Your task to perform on an android device: View the shopping cart on amazon.com. Image 0: 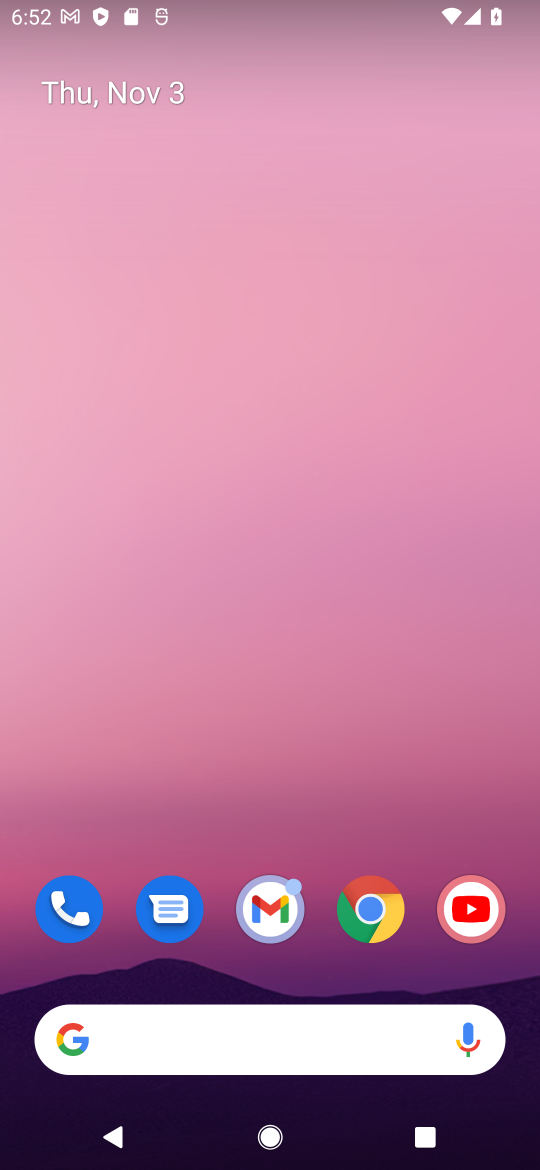
Step 0: drag from (307, 911) to (311, 11)
Your task to perform on an android device: View the shopping cart on amazon.com. Image 1: 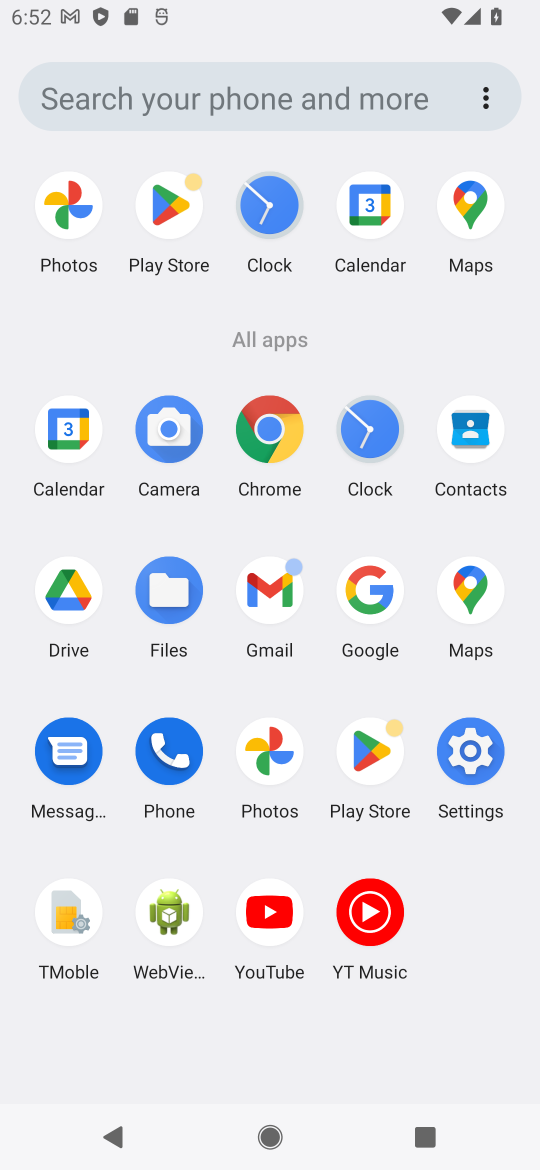
Step 1: click (366, 581)
Your task to perform on an android device: View the shopping cart on amazon.com. Image 2: 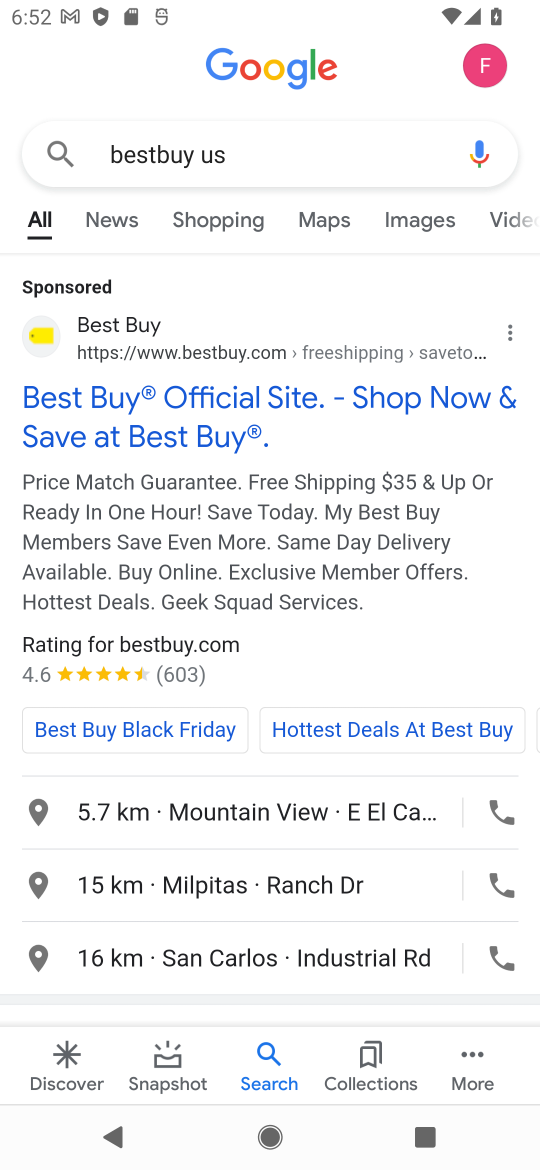
Step 2: click (325, 135)
Your task to perform on an android device: View the shopping cart on amazon.com. Image 3: 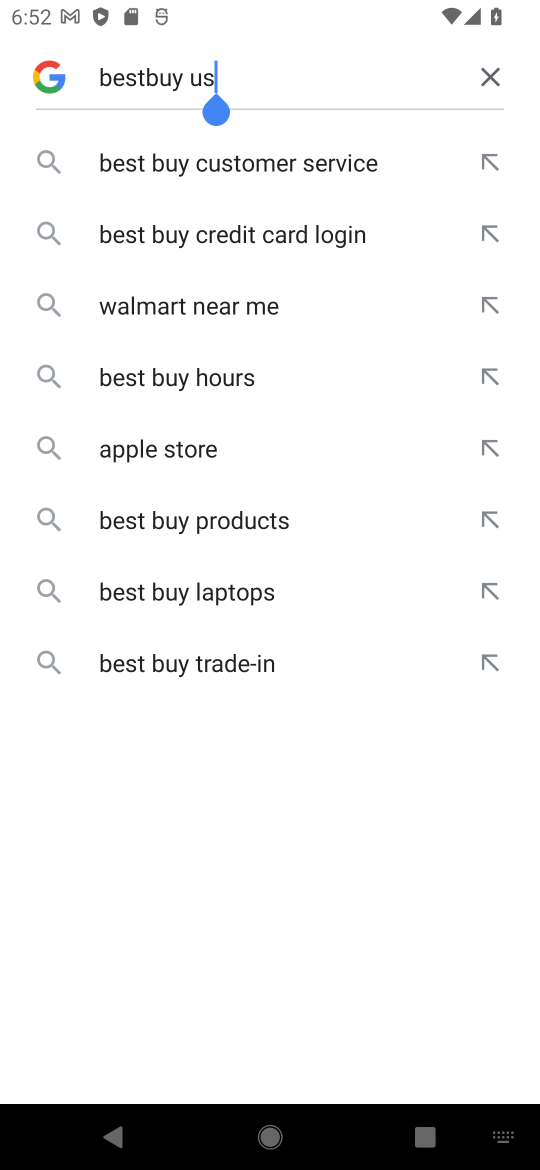
Step 3: click (481, 75)
Your task to perform on an android device: View the shopping cart on amazon.com. Image 4: 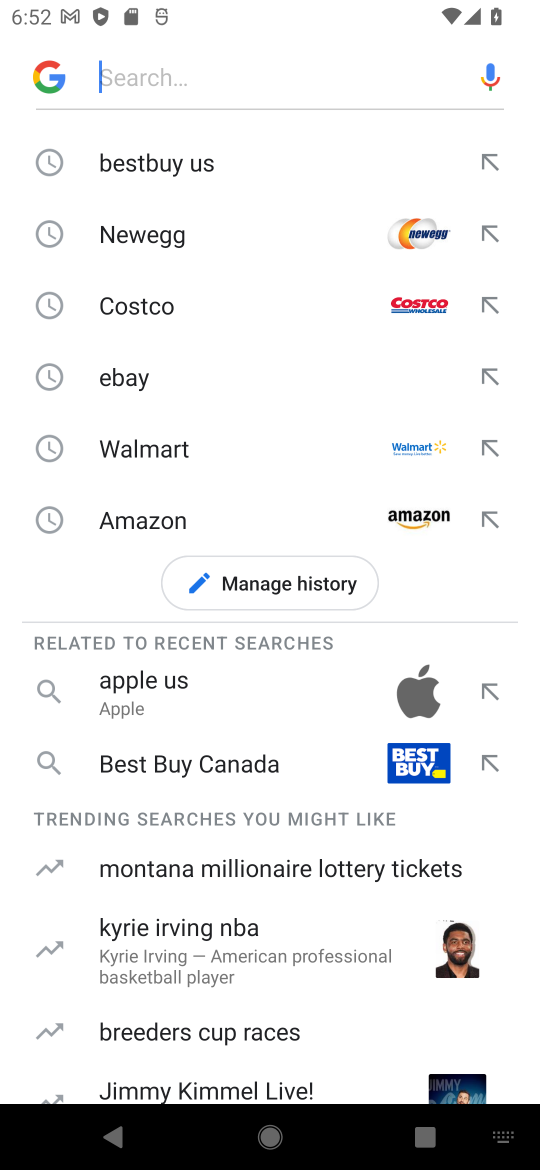
Step 4: click (231, 53)
Your task to perform on an android device: View the shopping cart on amazon.com. Image 5: 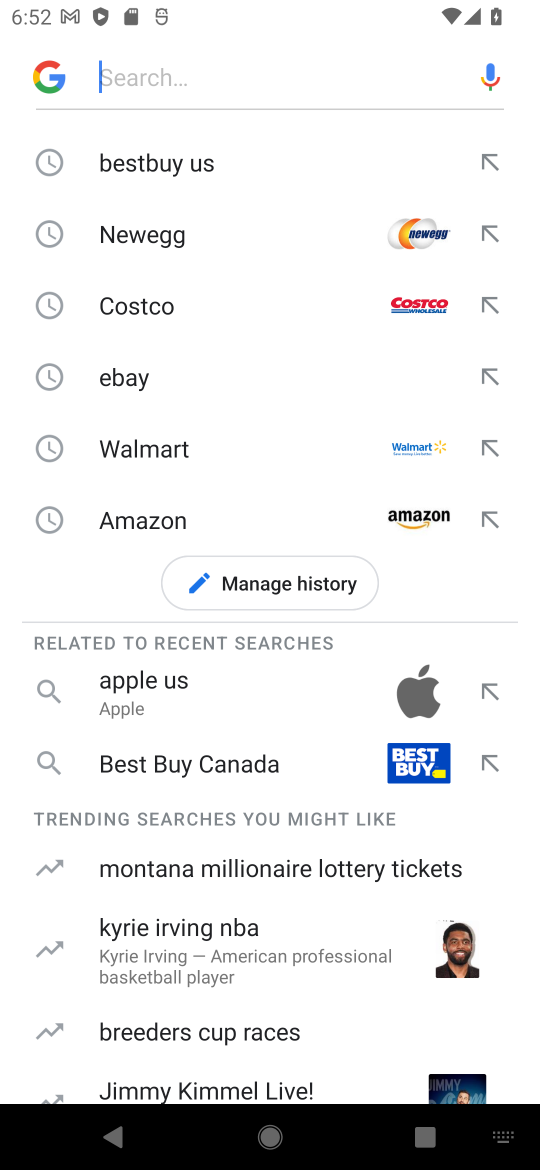
Step 5: type "amazon.com. "
Your task to perform on an android device: View the shopping cart on amazon.com. Image 6: 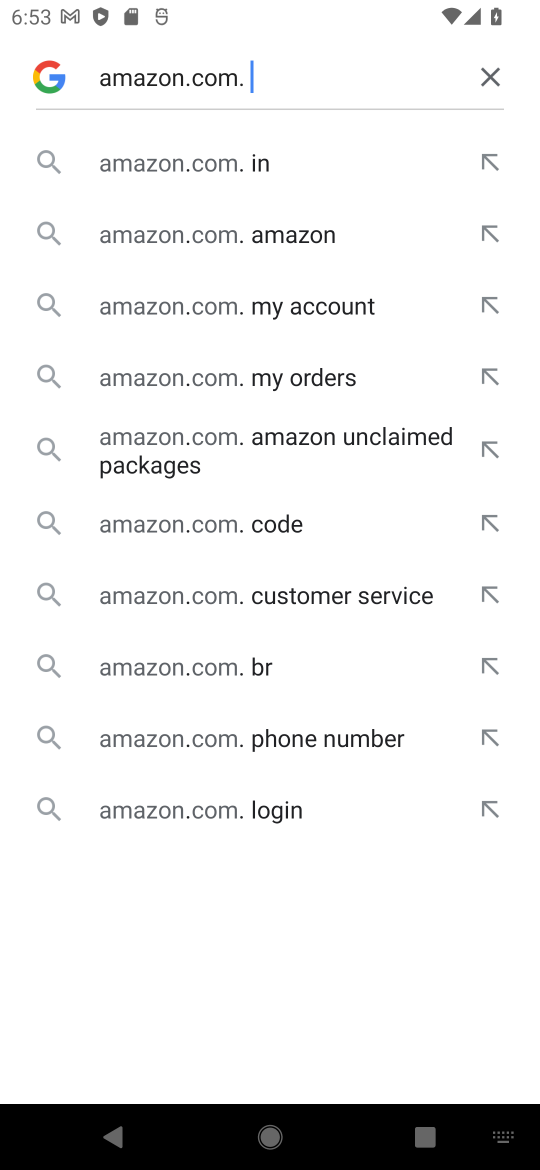
Step 6: click (171, 161)
Your task to perform on an android device: View the shopping cart on amazon.com. Image 7: 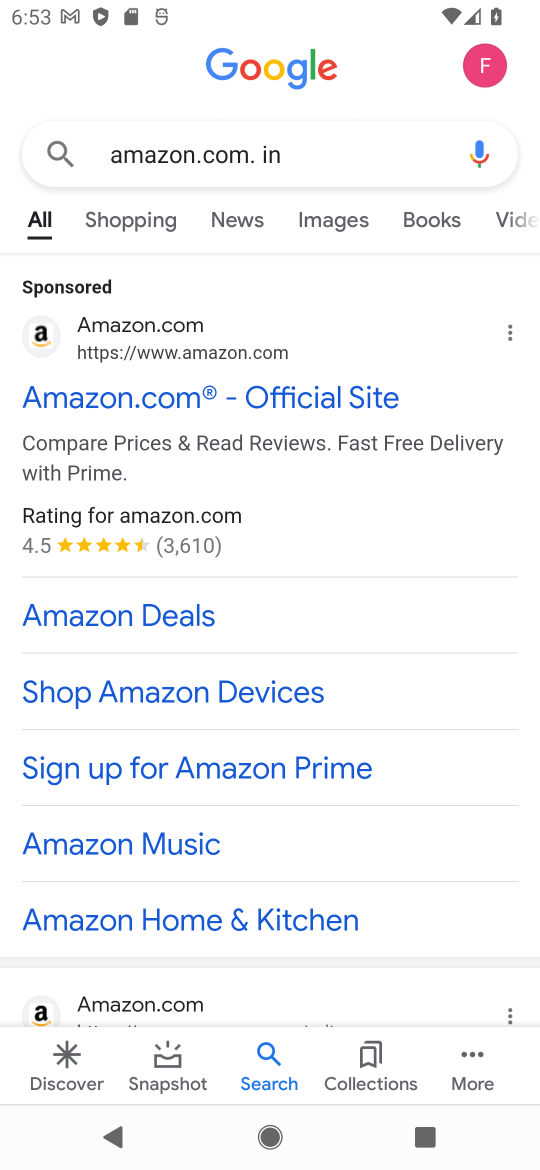
Step 7: click (32, 335)
Your task to perform on an android device: View the shopping cart on amazon.com. Image 8: 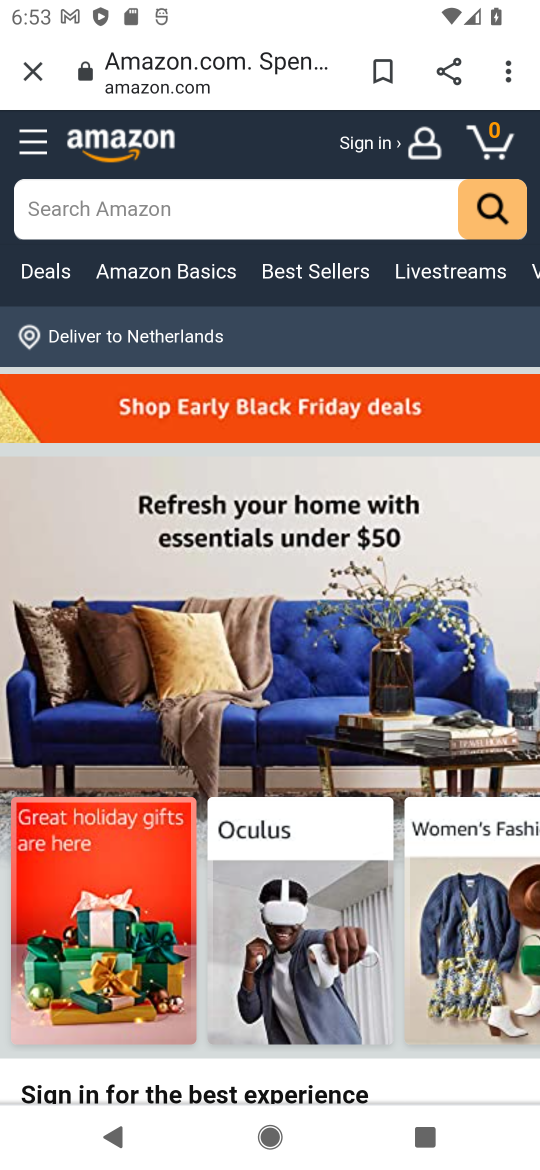
Step 8: click (496, 131)
Your task to perform on an android device: View the shopping cart on amazon.com. Image 9: 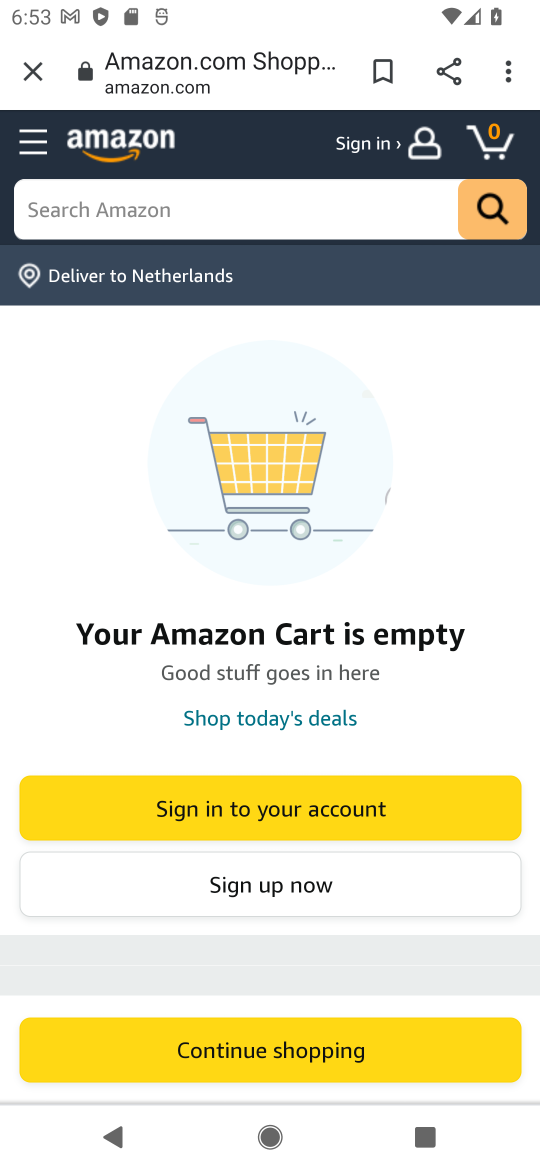
Step 9: task complete